Your task to perform on an android device: Go to network settings Image 0: 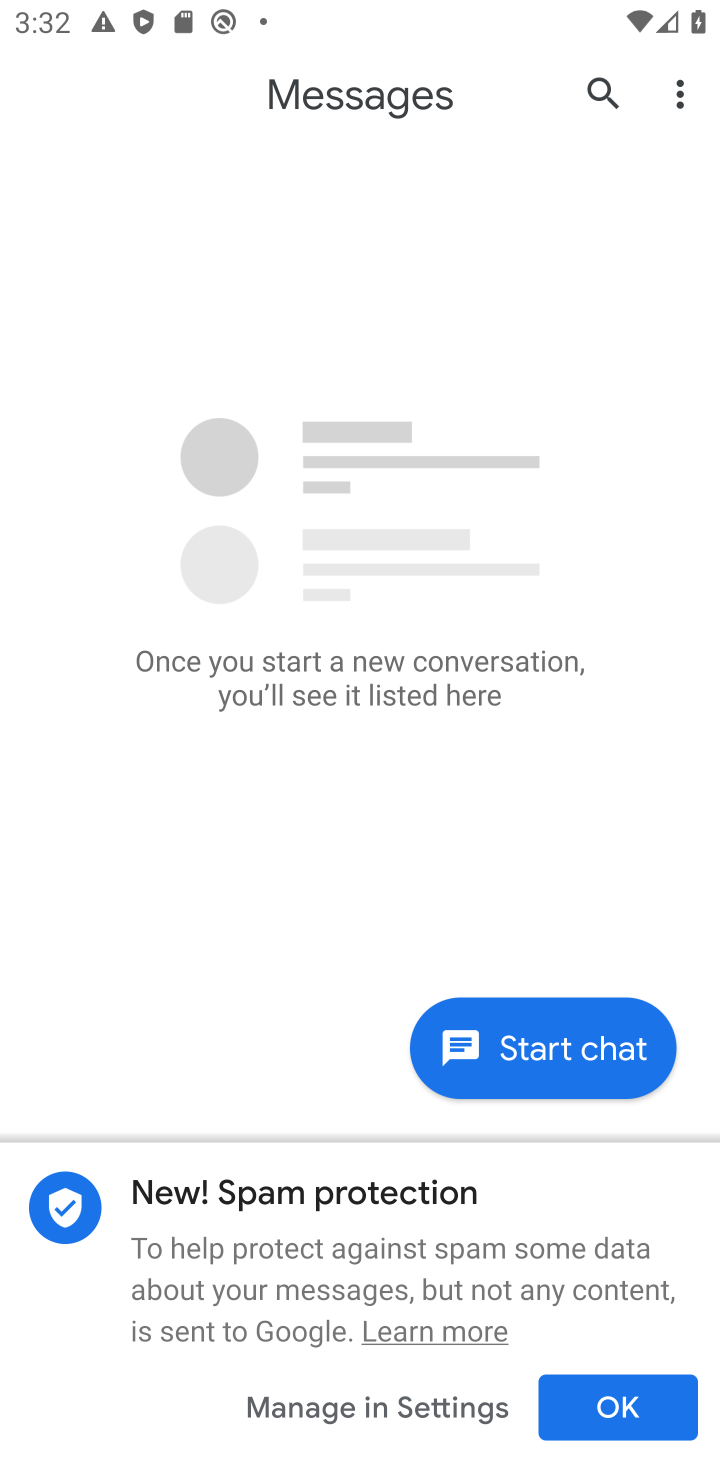
Step 0: press home button
Your task to perform on an android device: Go to network settings Image 1: 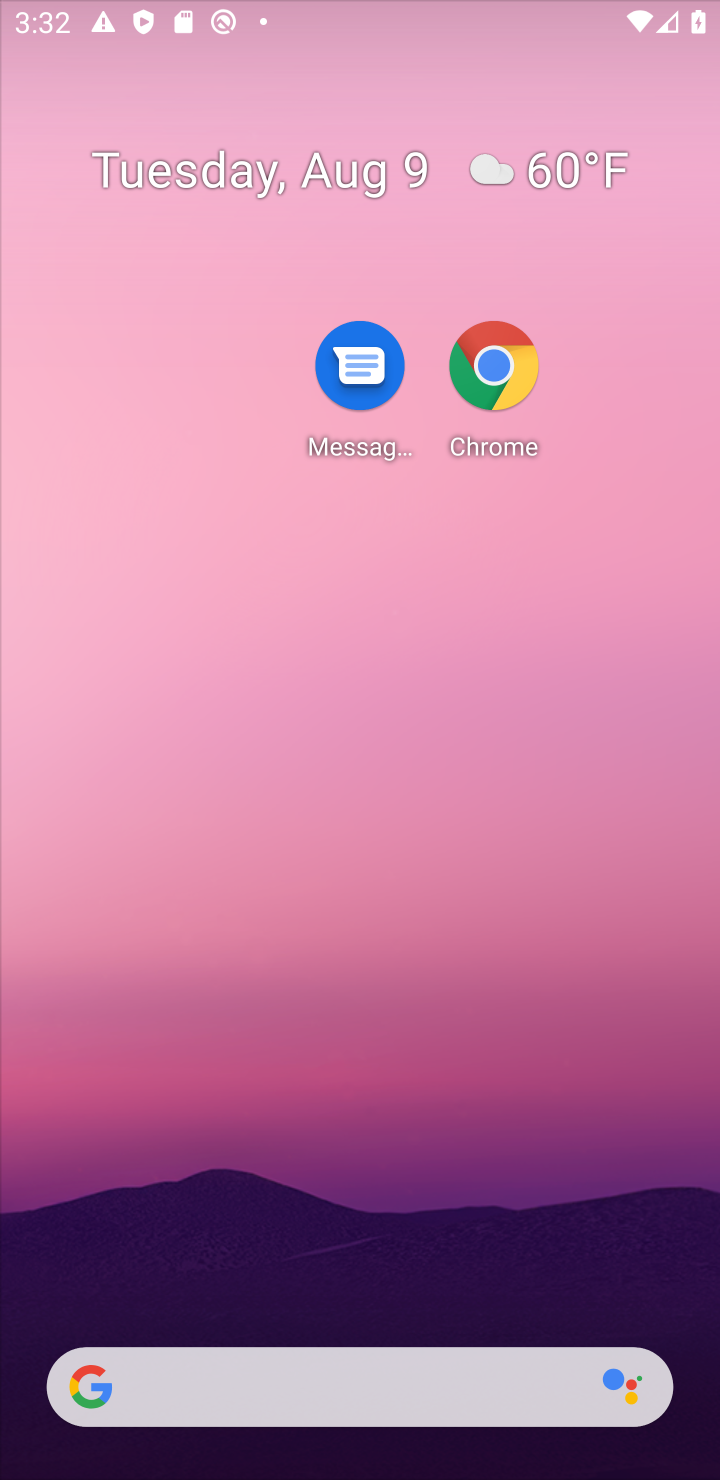
Step 1: drag from (248, 1187) to (292, 469)
Your task to perform on an android device: Go to network settings Image 2: 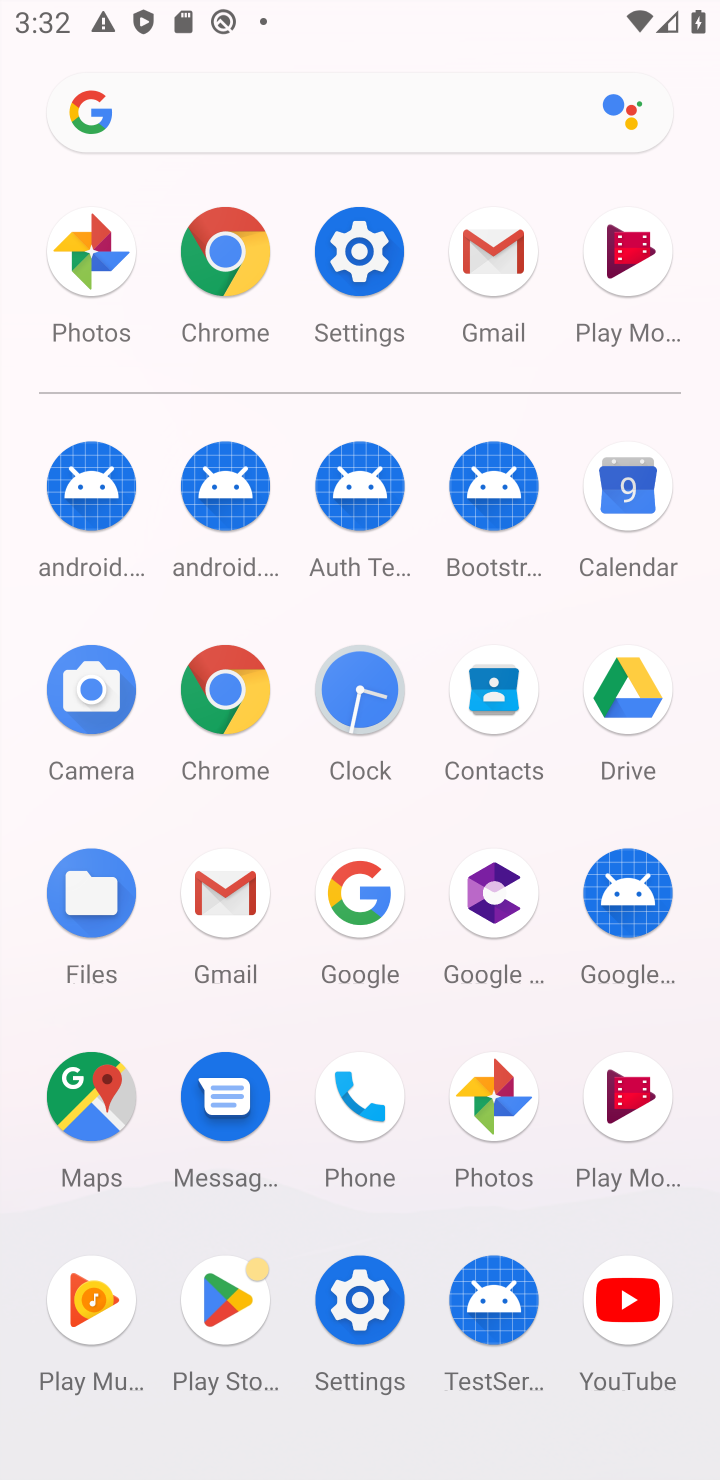
Step 2: click (350, 247)
Your task to perform on an android device: Go to network settings Image 3: 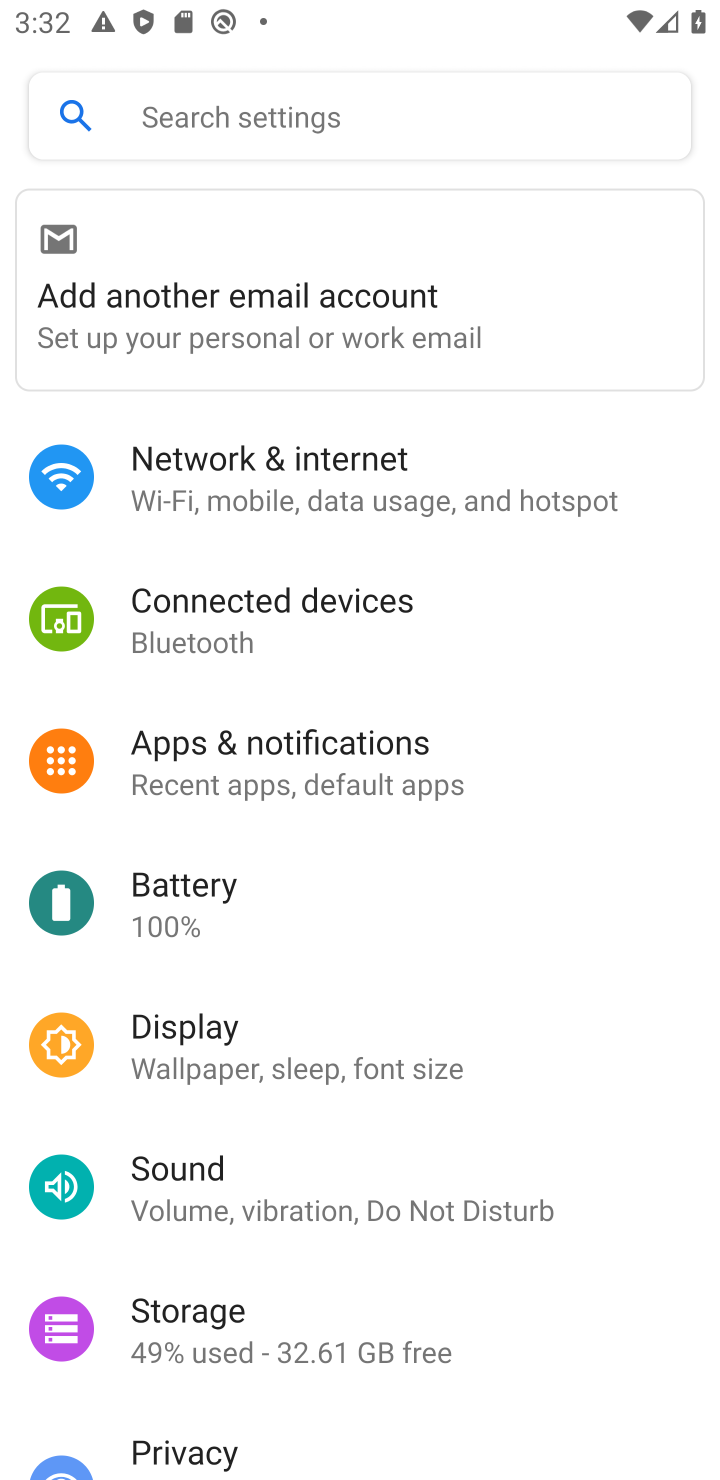
Step 3: click (346, 503)
Your task to perform on an android device: Go to network settings Image 4: 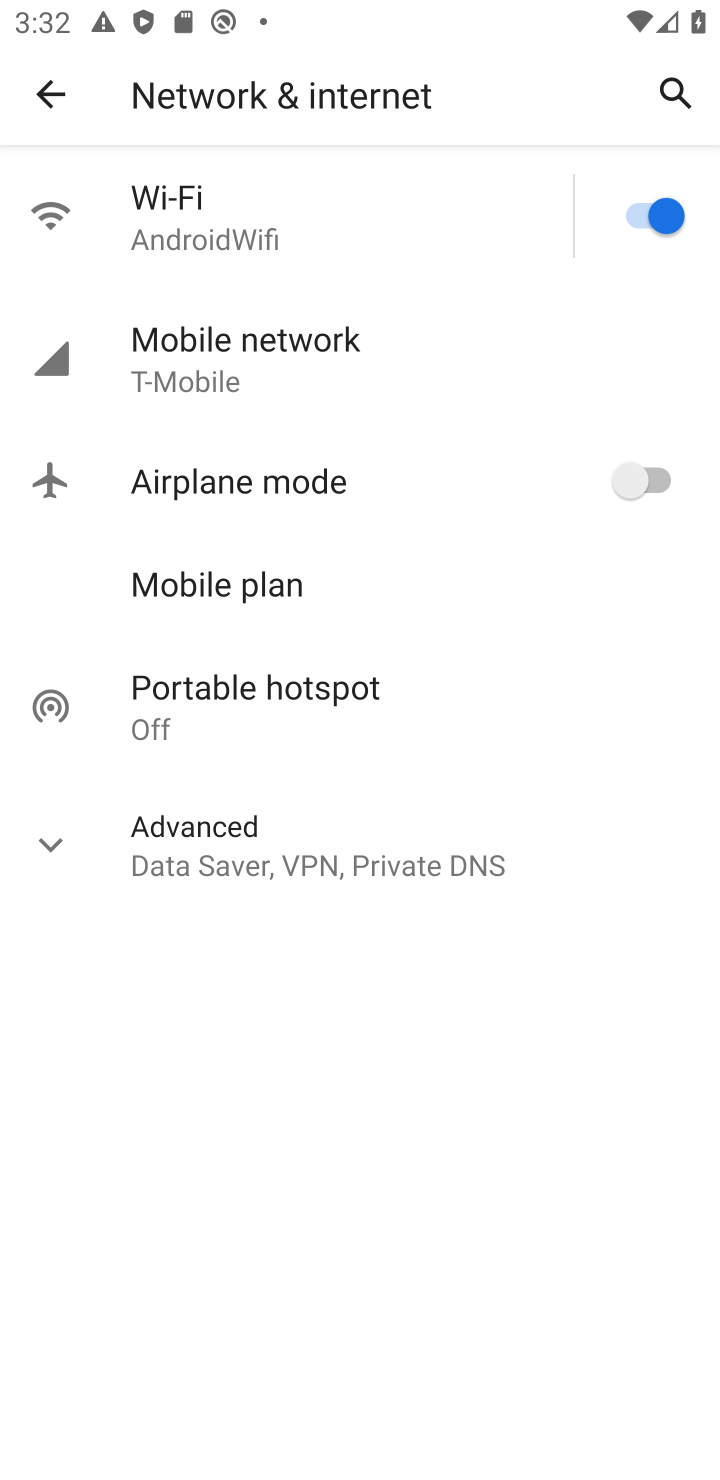
Step 4: task complete